Your task to perform on an android device: Open Yahoo.com Image 0: 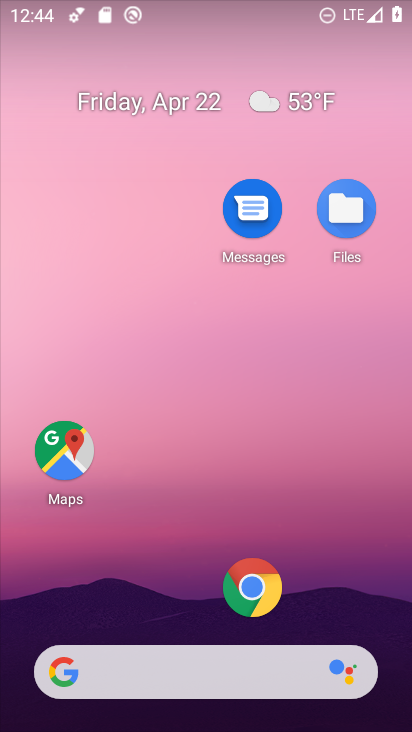
Step 0: click (257, 593)
Your task to perform on an android device: Open Yahoo.com Image 1: 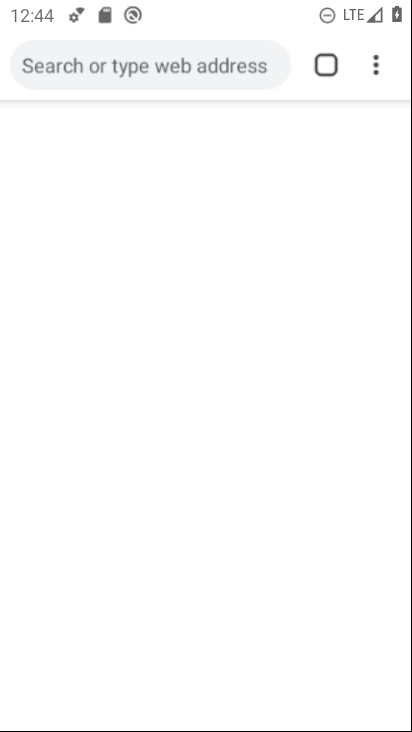
Step 1: click (176, 62)
Your task to perform on an android device: Open Yahoo.com Image 2: 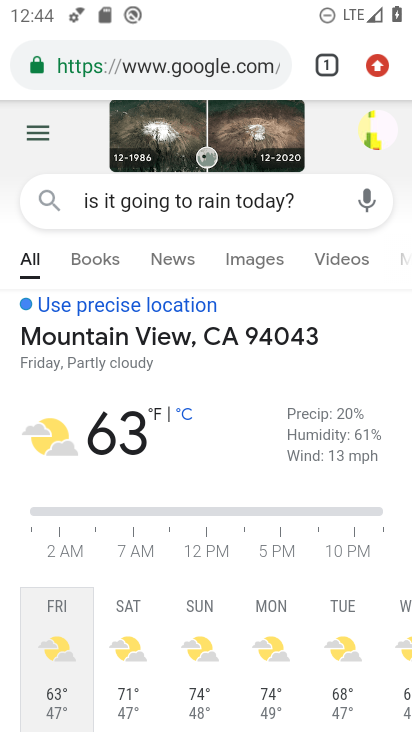
Step 2: type "Yahoo.com"
Your task to perform on an android device: Open Yahoo.com Image 3: 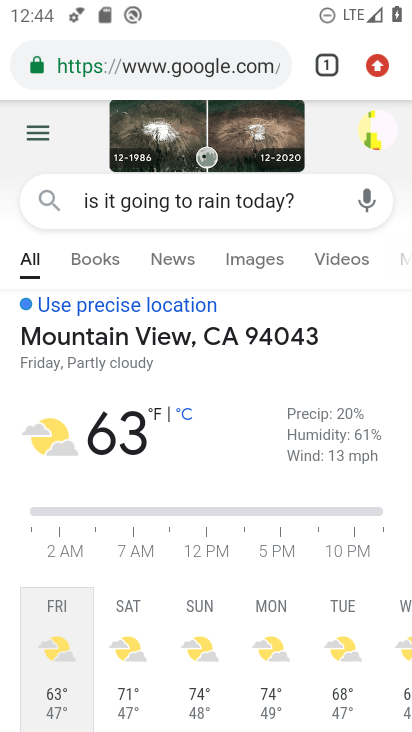
Step 3: click (130, 66)
Your task to perform on an android device: Open Yahoo.com Image 4: 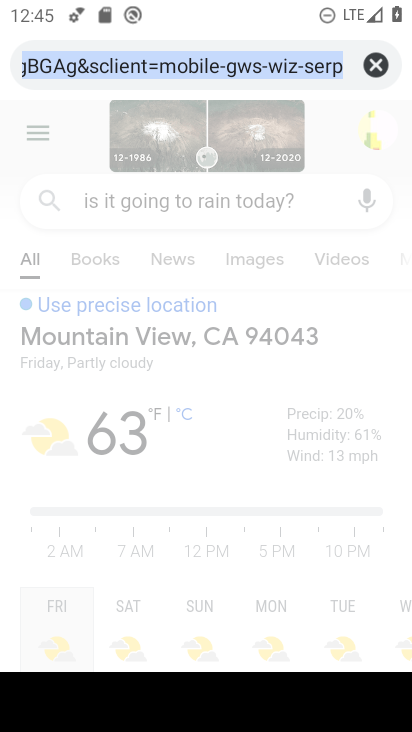
Step 4: type "Yahoo.com"
Your task to perform on an android device: Open Yahoo.com Image 5: 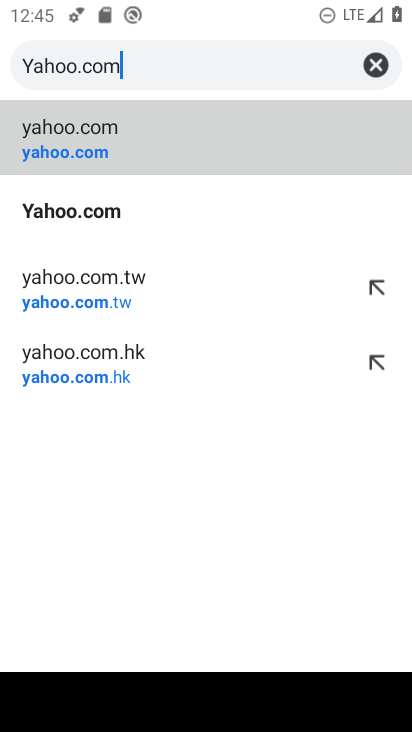
Step 5: click (232, 147)
Your task to perform on an android device: Open Yahoo.com Image 6: 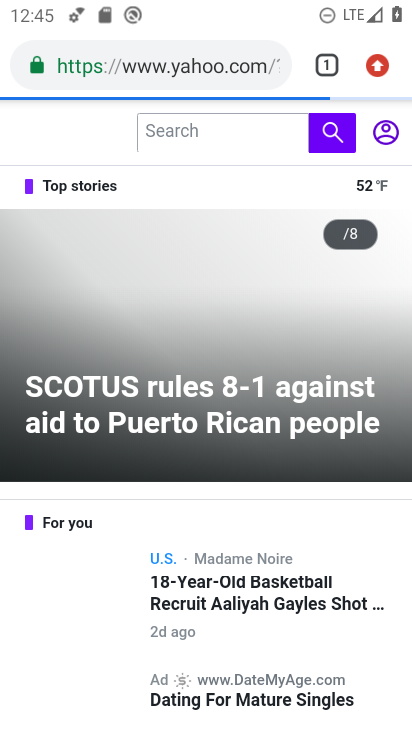
Step 6: task complete